Your task to perform on an android device: Go to network settings Image 0: 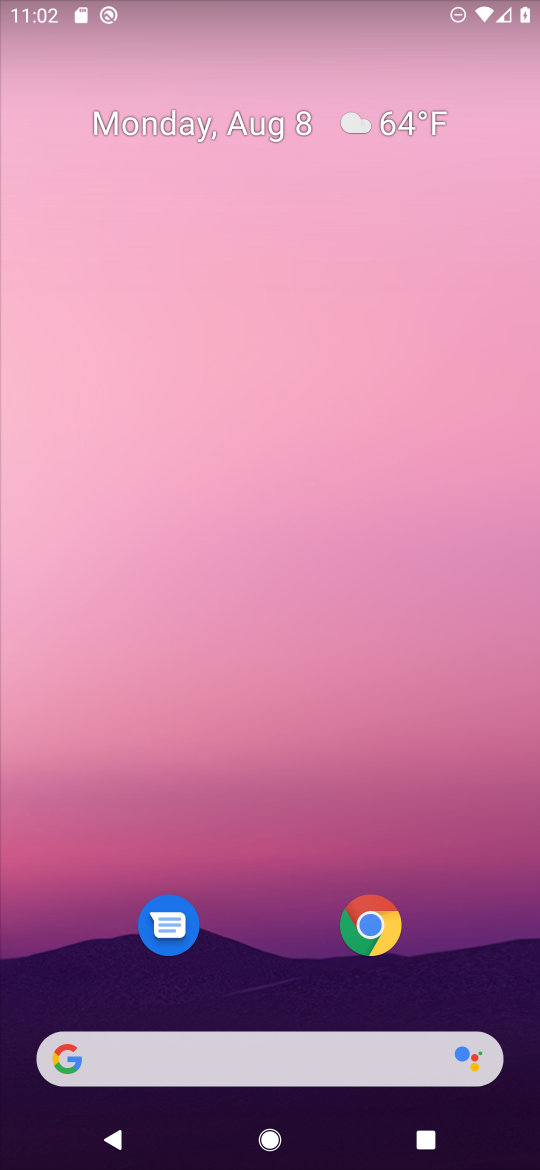
Step 0: press home button
Your task to perform on an android device: Go to network settings Image 1: 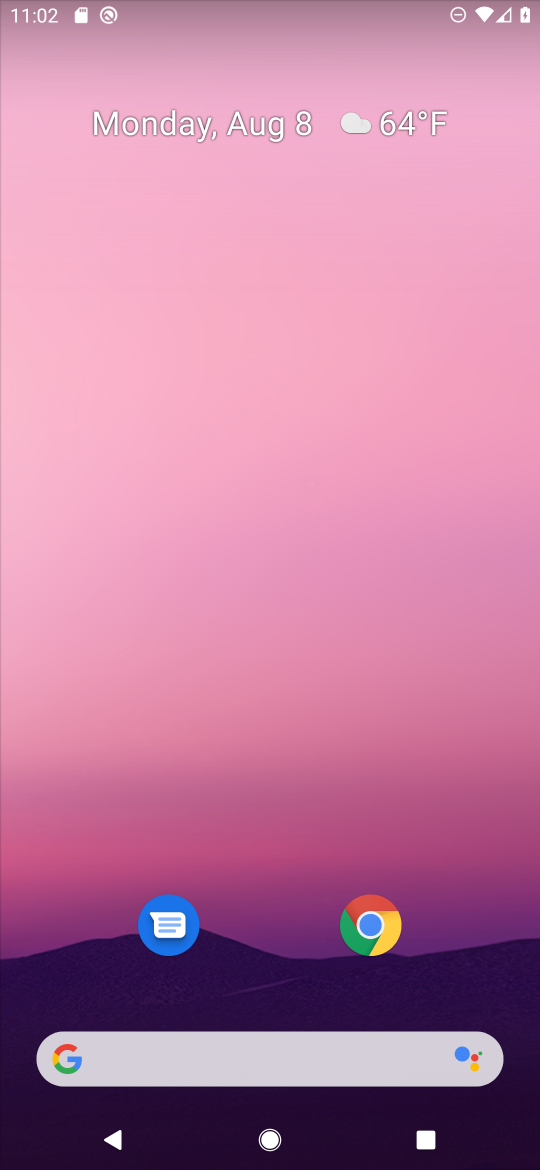
Step 1: drag from (249, 923) to (392, 255)
Your task to perform on an android device: Go to network settings Image 2: 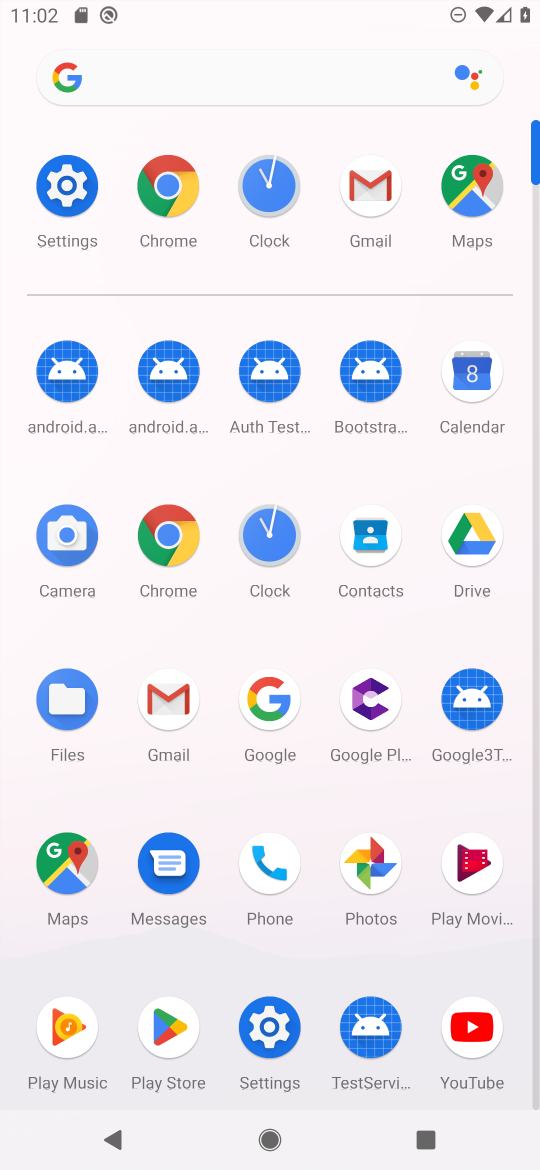
Step 2: click (269, 1051)
Your task to perform on an android device: Go to network settings Image 3: 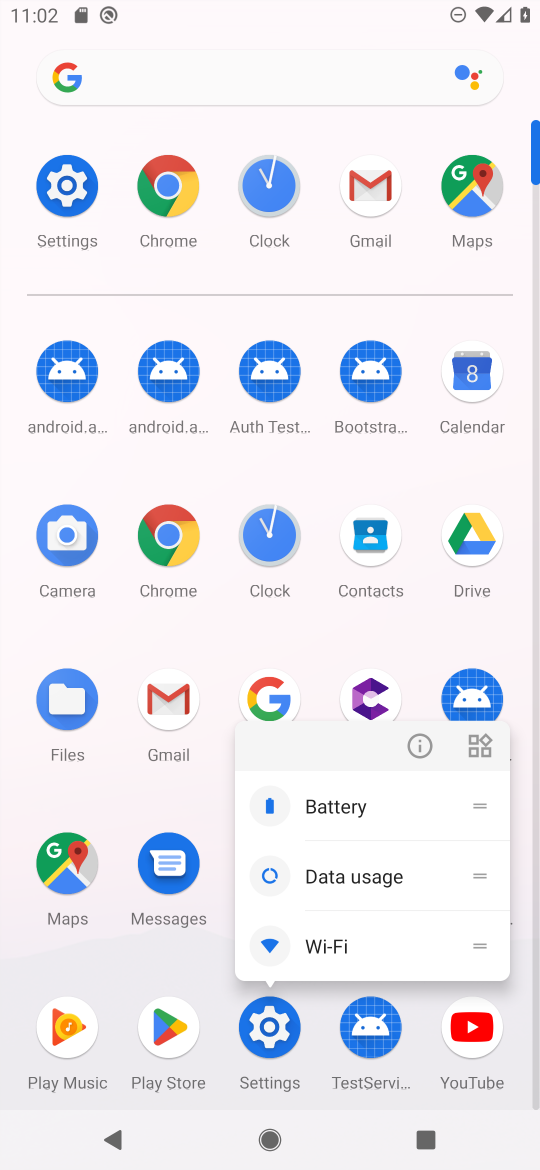
Step 3: click (263, 1023)
Your task to perform on an android device: Go to network settings Image 4: 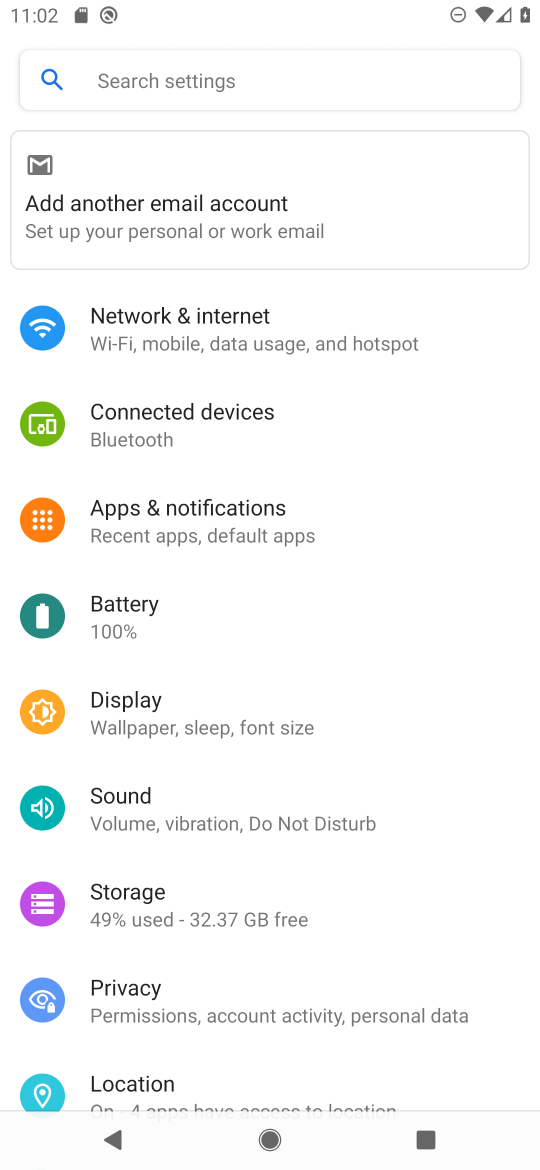
Step 4: click (312, 336)
Your task to perform on an android device: Go to network settings Image 5: 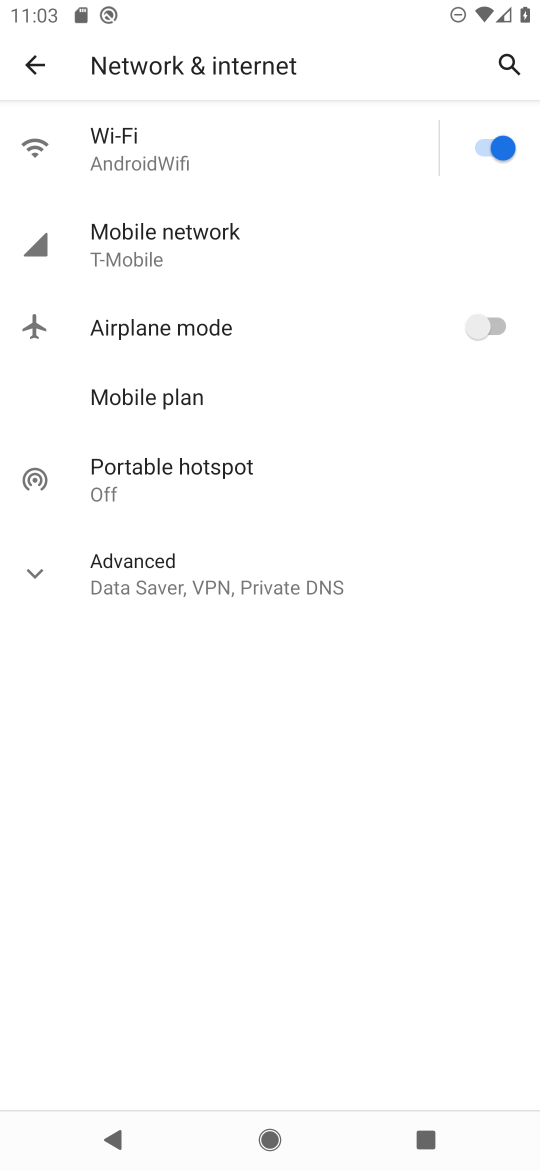
Step 5: task complete